Your task to perform on an android device: Go to ESPN.com Image 0: 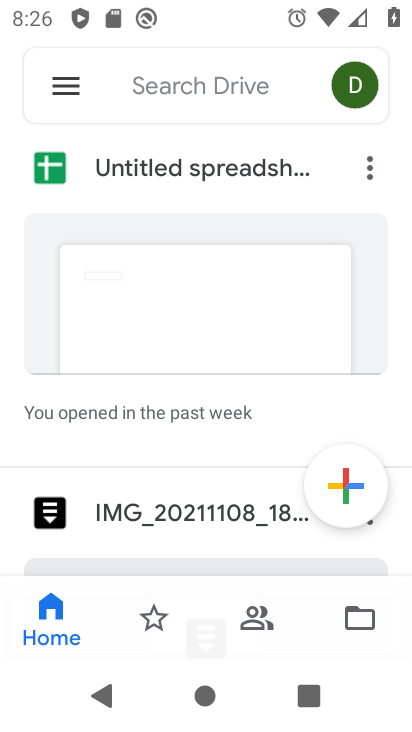
Step 0: press home button
Your task to perform on an android device: Go to ESPN.com Image 1: 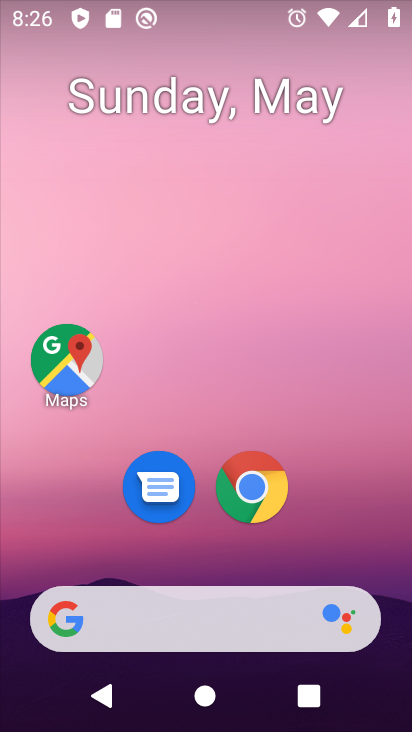
Step 1: click (267, 471)
Your task to perform on an android device: Go to ESPN.com Image 2: 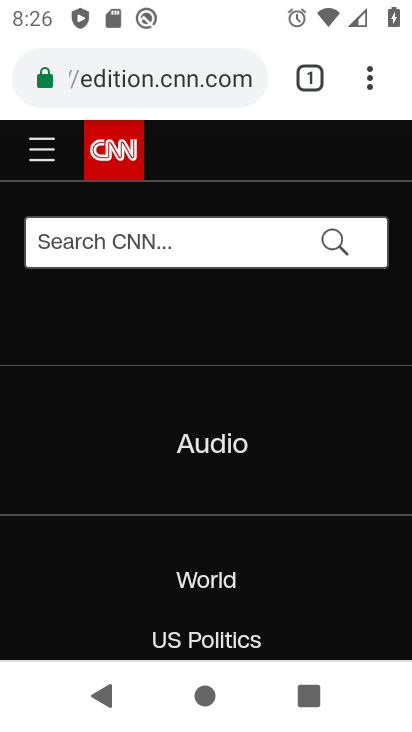
Step 2: click (310, 83)
Your task to perform on an android device: Go to ESPN.com Image 3: 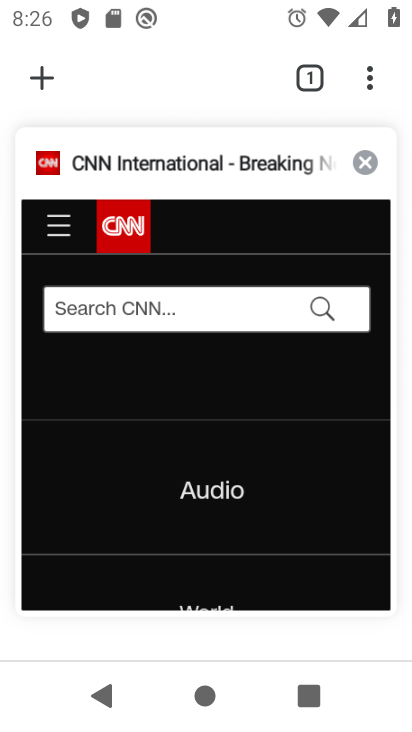
Step 3: click (28, 72)
Your task to perform on an android device: Go to ESPN.com Image 4: 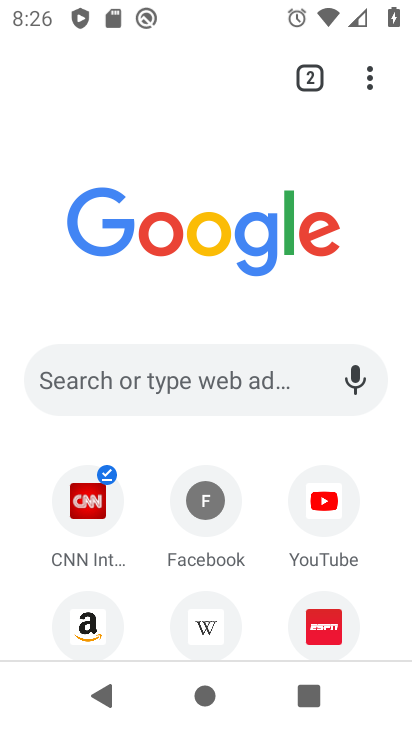
Step 4: click (339, 609)
Your task to perform on an android device: Go to ESPN.com Image 5: 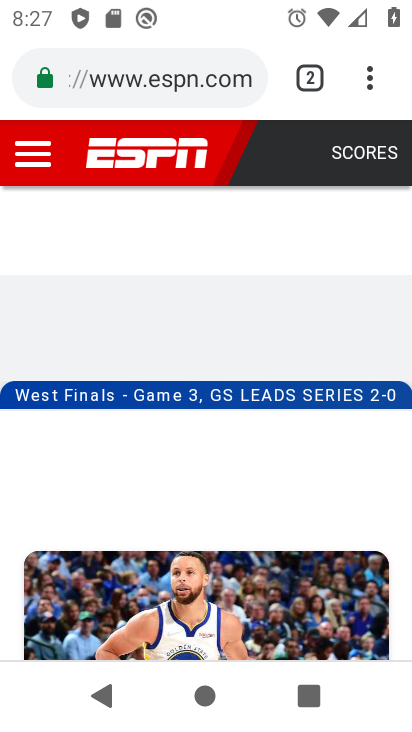
Step 5: task complete